Your task to perform on an android device: Add "razer deathadder" to the cart on bestbuy Image 0: 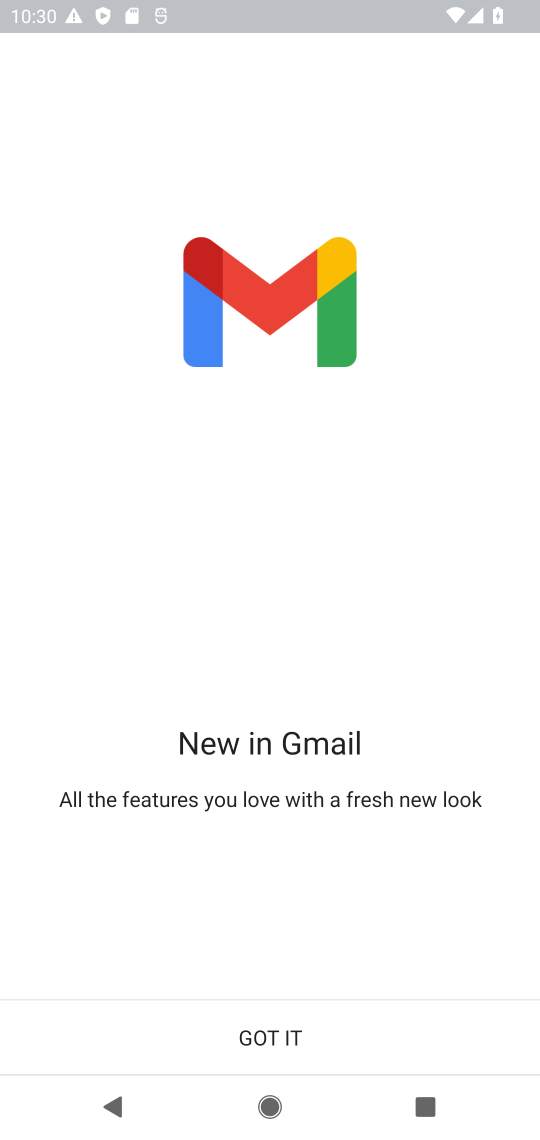
Step 0: press home button
Your task to perform on an android device: Add "razer deathadder" to the cart on bestbuy Image 1: 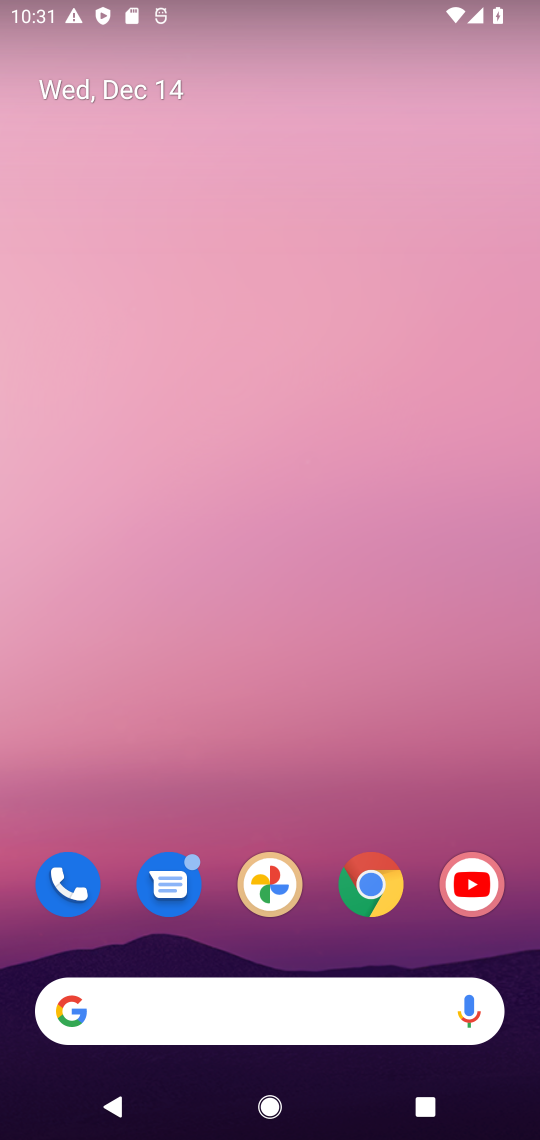
Step 1: click (370, 873)
Your task to perform on an android device: Add "razer deathadder" to the cart on bestbuy Image 2: 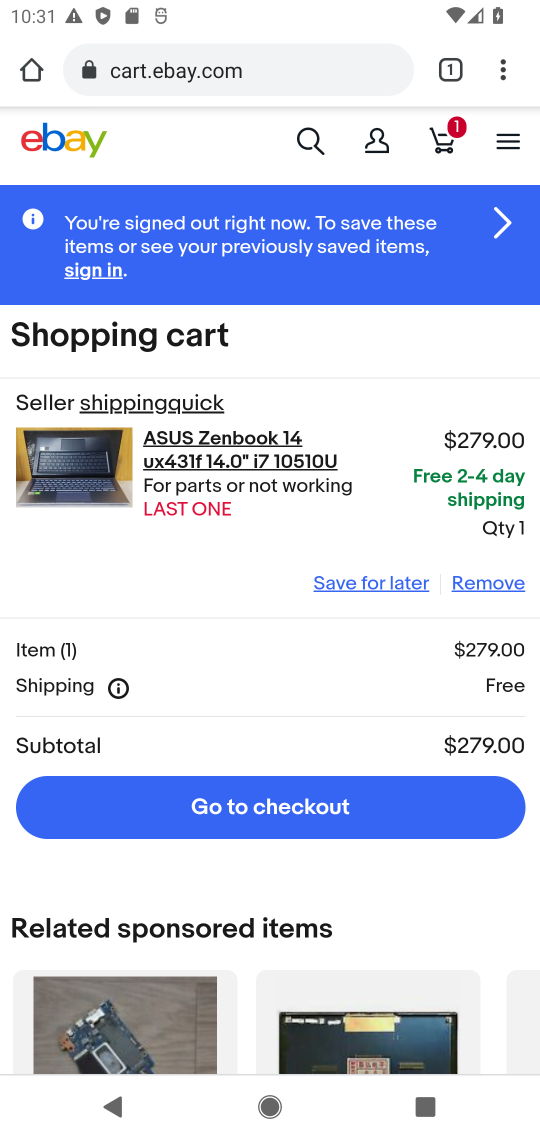
Step 2: click (321, 70)
Your task to perform on an android device: Add "razer deathadder" to the cart on bestbuy Image 3: 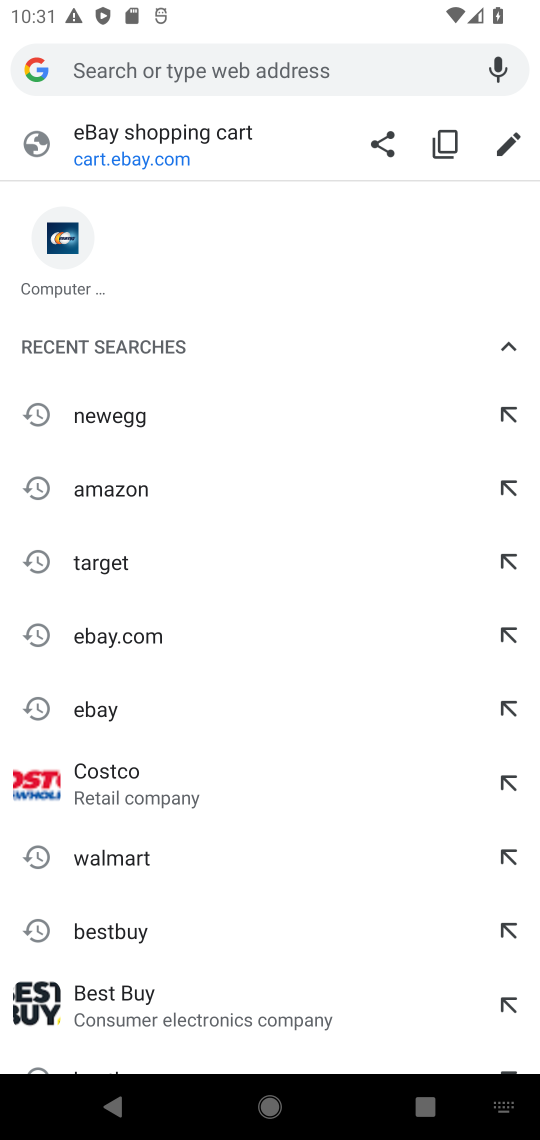
Step 3: type "bestbuy"
Your task to perform on an android device: Add "razer deathadder" to the cart on bestbuy Image 4: 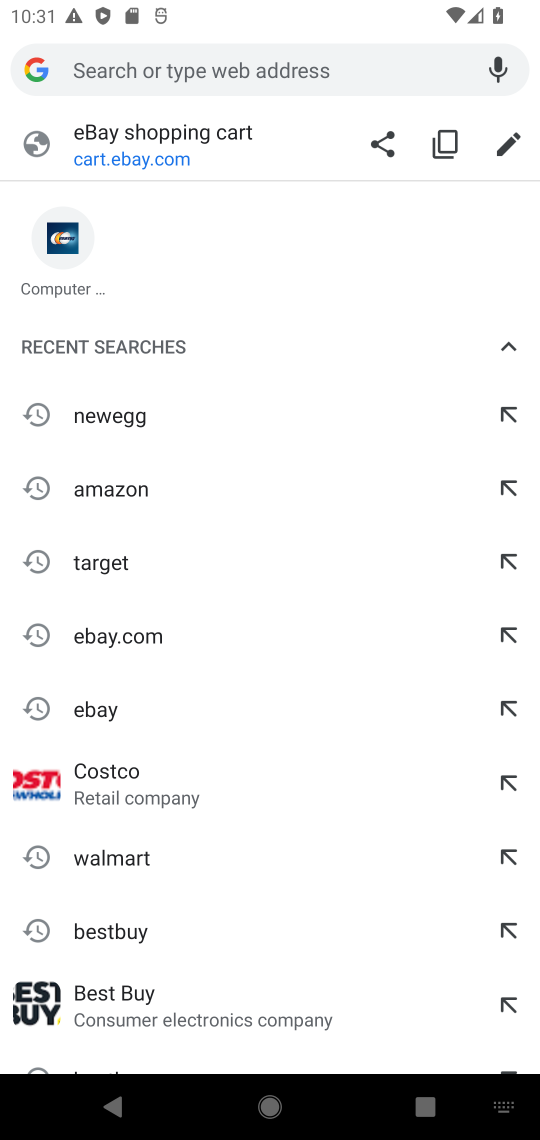
Step 4: click (102, 931)
Your task to perform on an android device: Add "razer deathadder" to the cart on bestbuy Image 5: 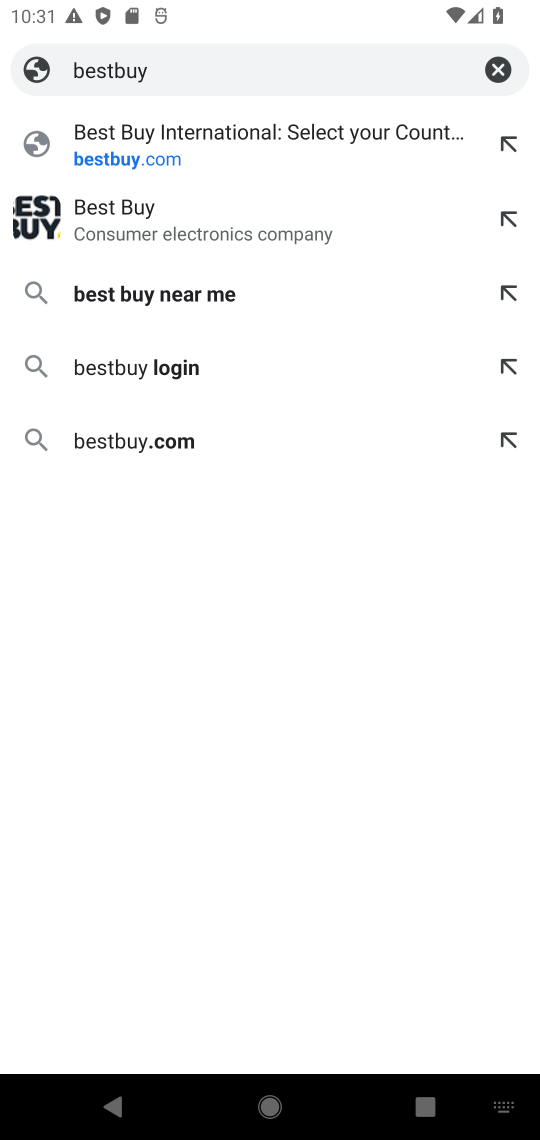
Step 5: click (359, 62)
Your task to perform on an android device: Add "razer deathadder" to the cart on bestbuy Image 6: 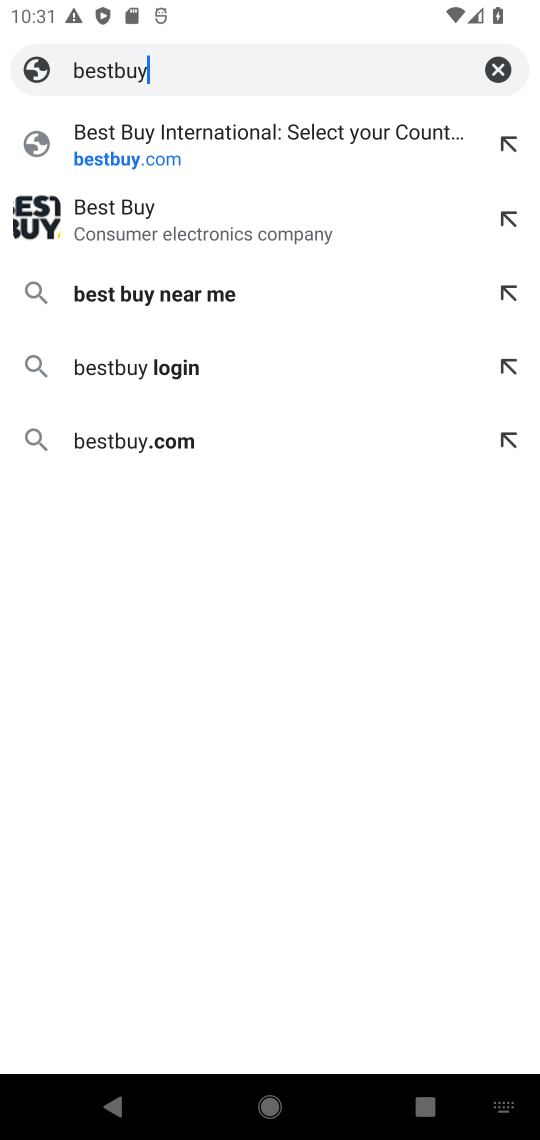
Step 6: click (153, 444)
Your task to perform on an android device: Add "razer deathadder" to the cart on bestbuy Image 7: 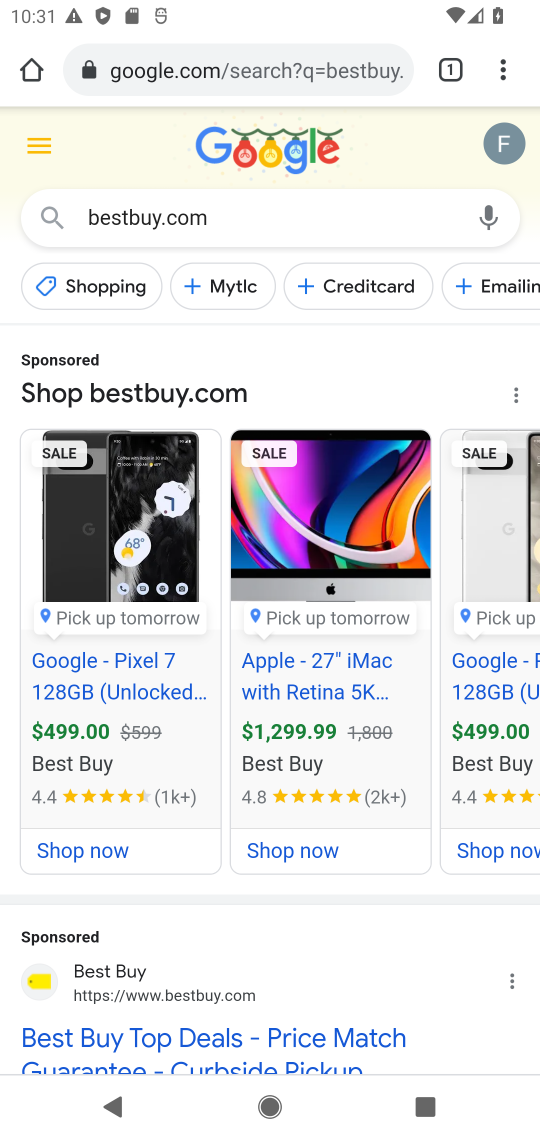
Step 7: click (171, 986)
Your task to perform on an android device: Add "razer deathadder" to the cart on bestbuy Image 8: 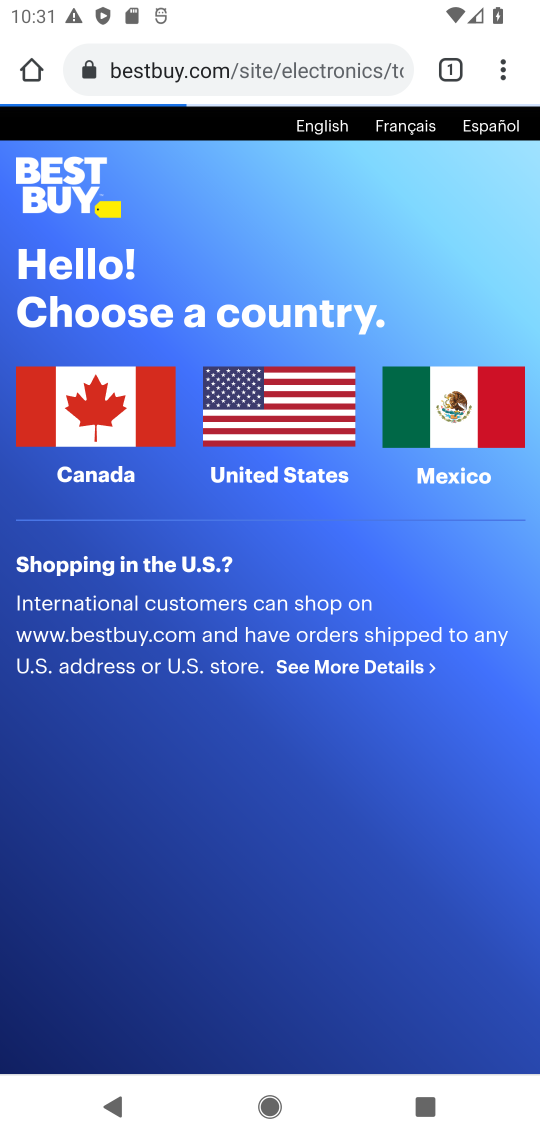
Step 8: click (319, 436)
Your task to perform on an android device: Add "razer deathadder" to the cart on bestbuy Image 9: 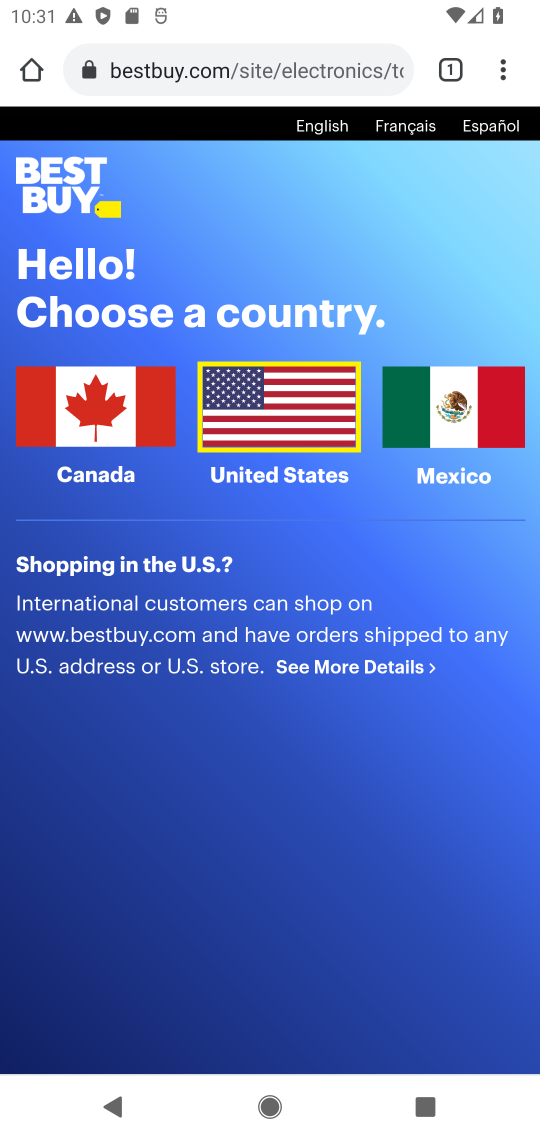
Step 9: click (319, 436)
Your task to perform on an android device: Add "razer deathadder" to the cart on bestbuy Image 10: 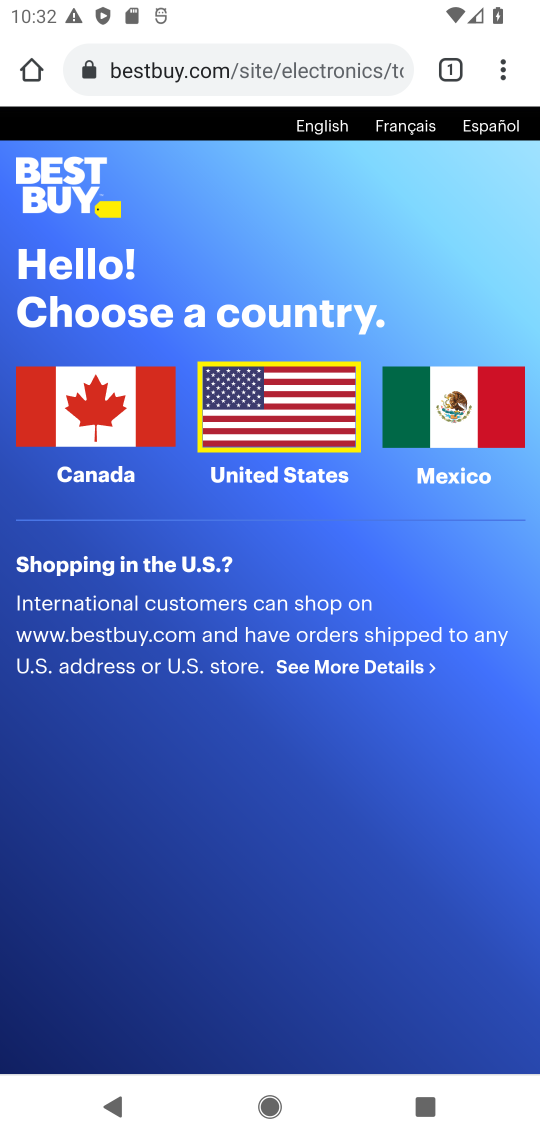
Step 10: click (319, 436)
Your task to perform on an android device: Add "razer deathadder" to the cart on bestbuy Image 11: 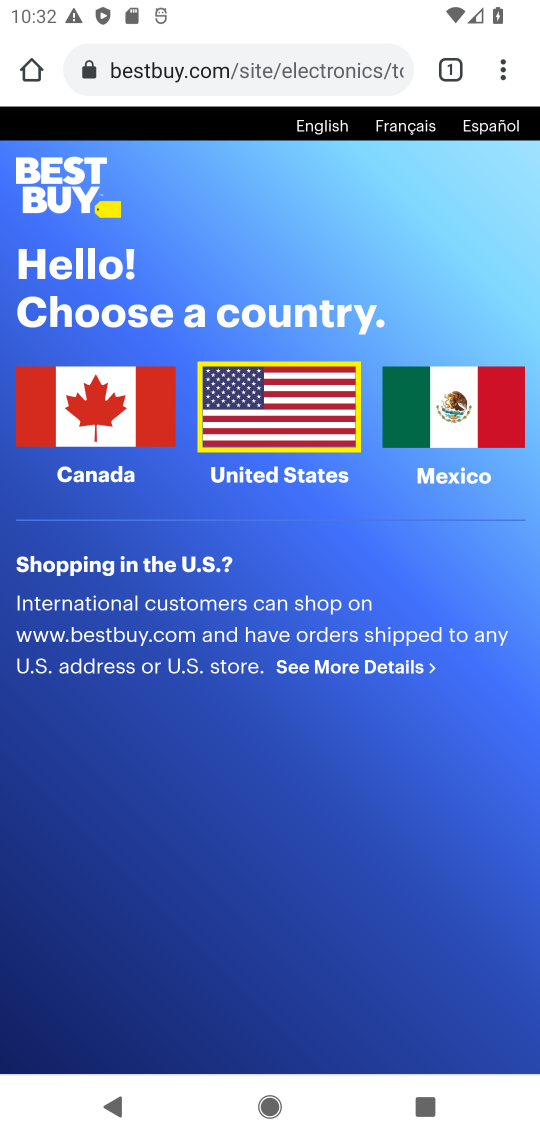
Step 11: click (319, 436)
Your task to perform on an android device: Add "razer deathadder" to the cart on bestbuy Image 12: 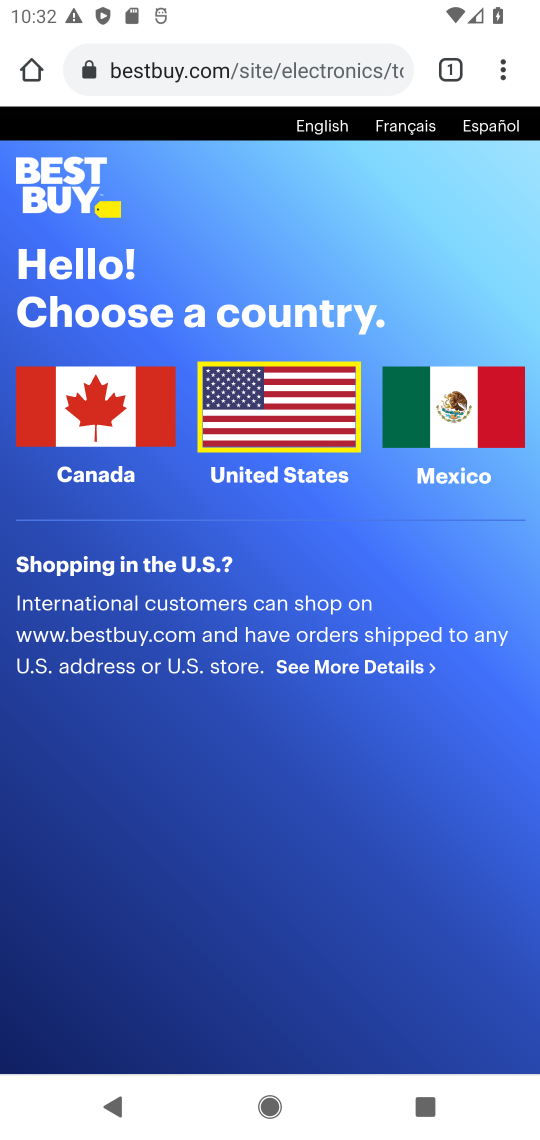
Step 12: click (319, 436)
Your task to perform on an android device: Add "razer deathadder" to the cart on bestbuy Image 13: 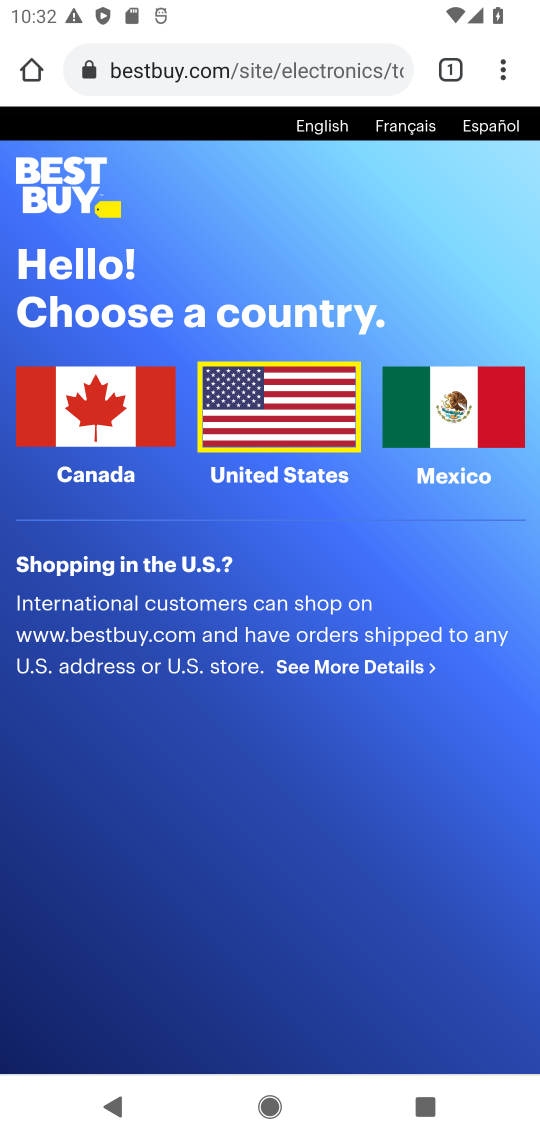
Step 13: click (319, 436)
Your task to perform on an android device: Add "razer deathadder" to the cart on bestbuy Image 14: 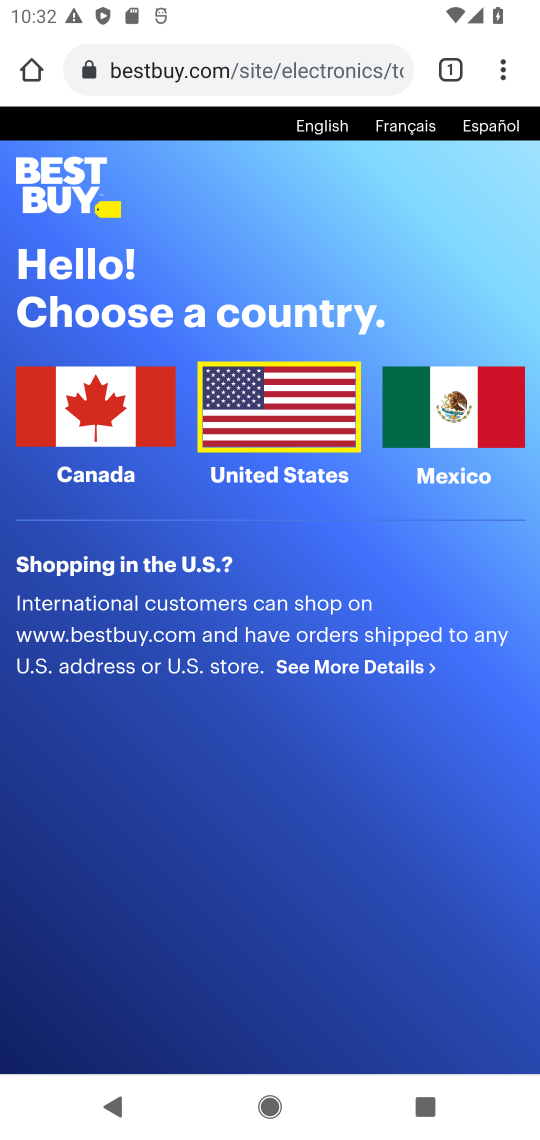
Step 14: click (319, 436)
Your task to perform on an android device: Add "razer deathadder" to the cart on bestbuy Image 15: 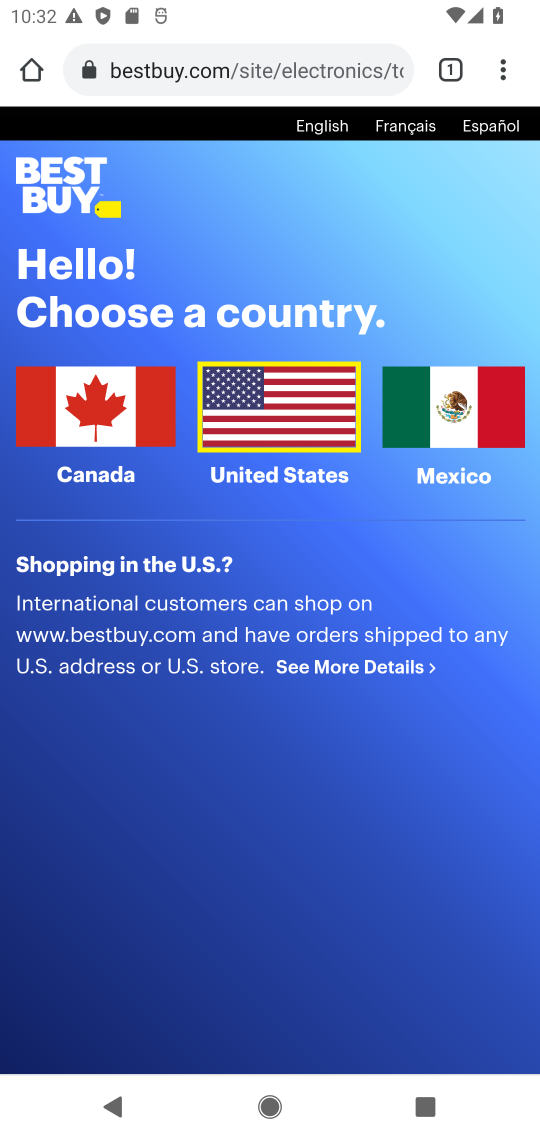
Step 15: click (319, 436)
Your task to perform on an android device: Add "razer deathadder" to the cart on bestbuy Image 16: 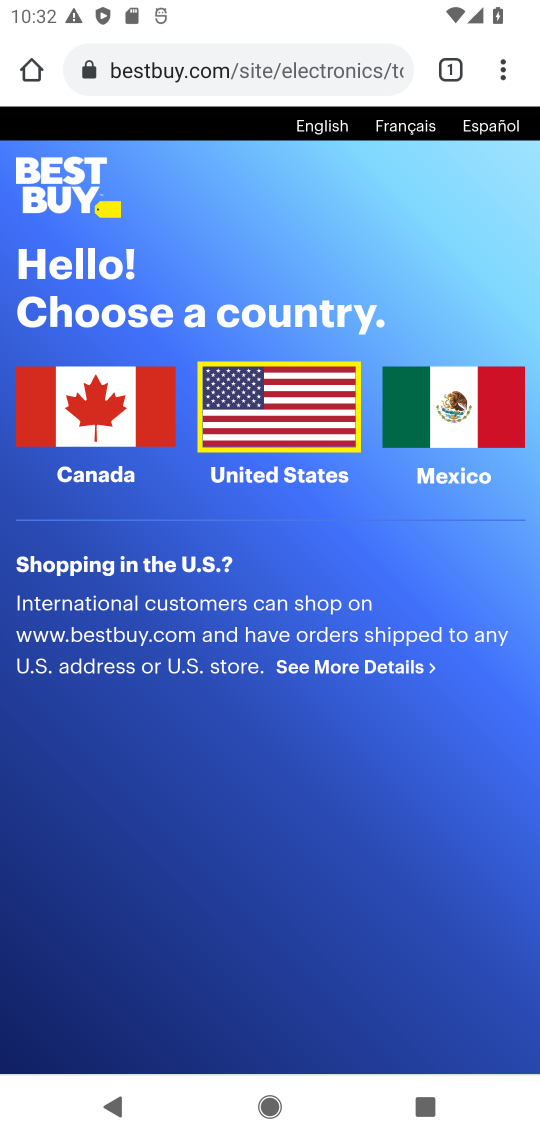
Step 16: click (260, 417)
Your task to perform on an android device: Add "razer deathadder" to the cart on bestbuy Image 17: 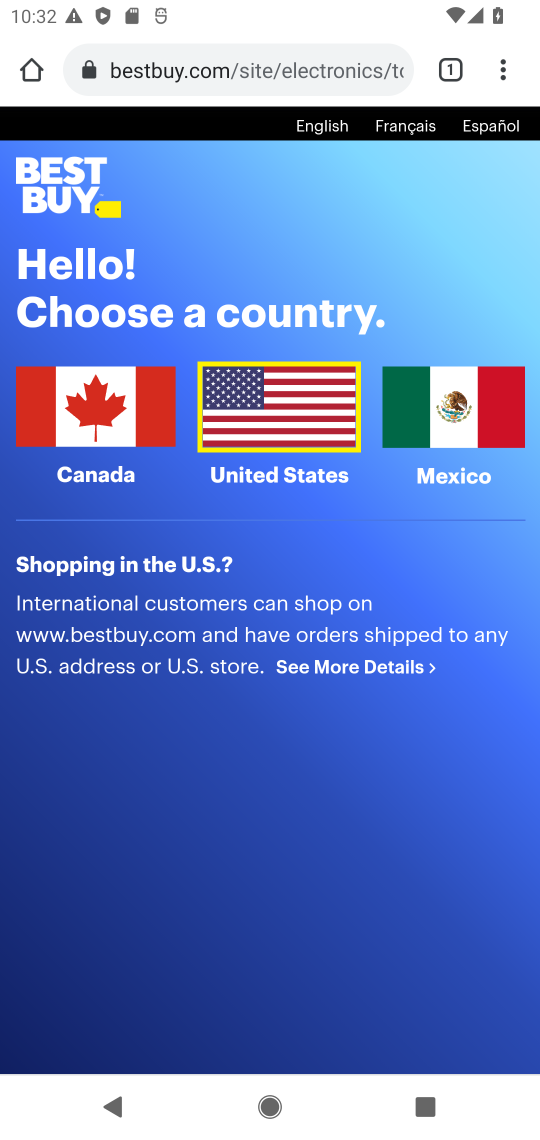
Step 17: click (260, 417)
Your task to perform on an android device: Add "razer deathadder" to the cart on bestbuy Image 18: 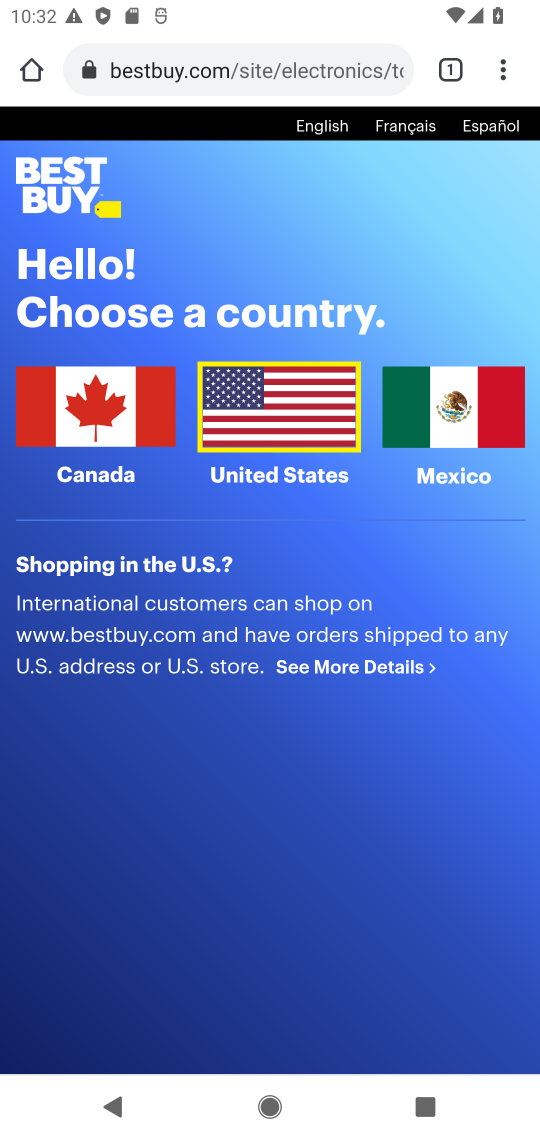
Step 18: click (260, 417)
Your task to perform on an android device: Add "razer deathadder" to the cart on bestbuy Image 19: 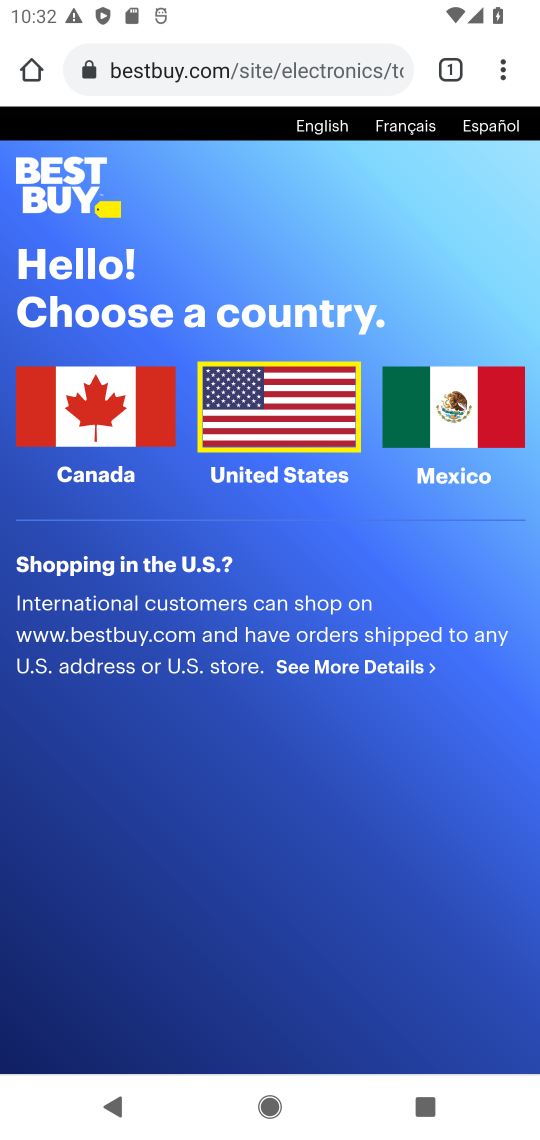
Step 19: click (288, 409)
Your task to perform on an android device: Add "razer deathadder" to the cart on bestbuy Image 20: 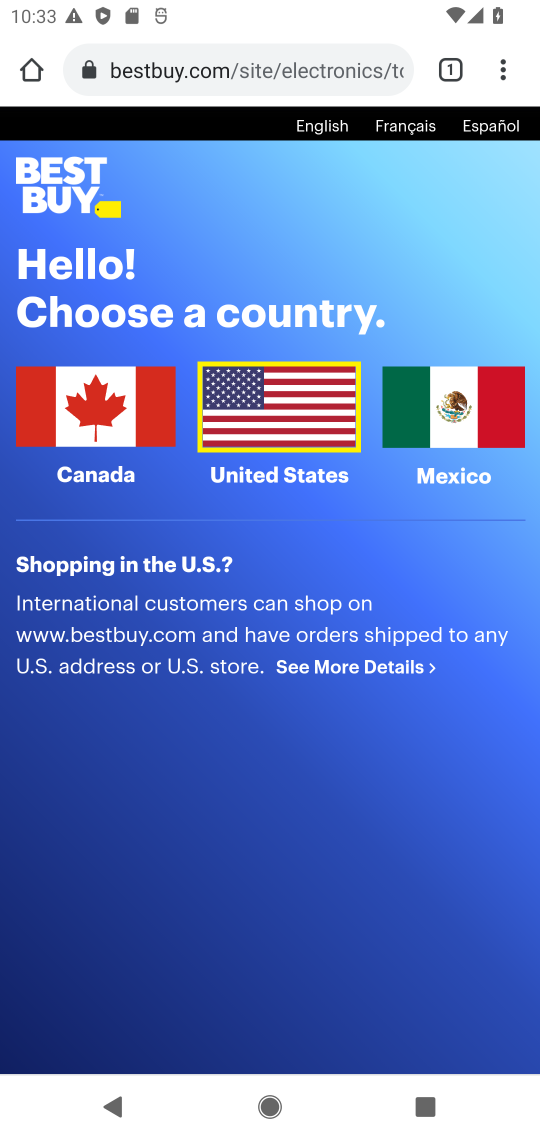
Step 20: click (288, 409)
Your task to perform on an android device: Add "razer deathadder" to the cart on bestbuy Image 21: 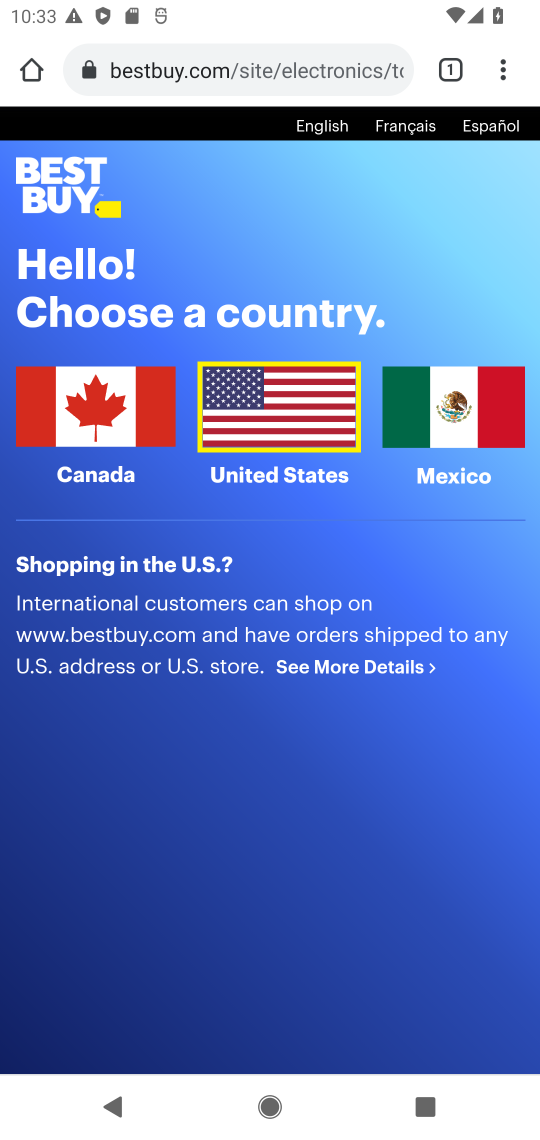
Step 21: task complete